Your task to perform on an android device: Open Google Chrome Image 0: 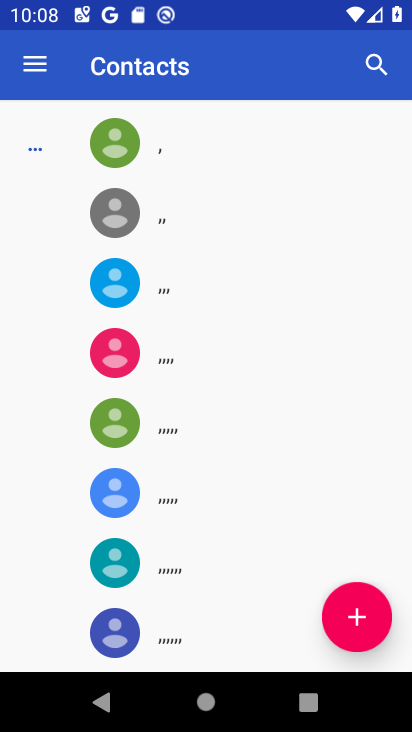
Step 0: press home button
Your task to perform on an android device: Open Google Chrome Image 1: 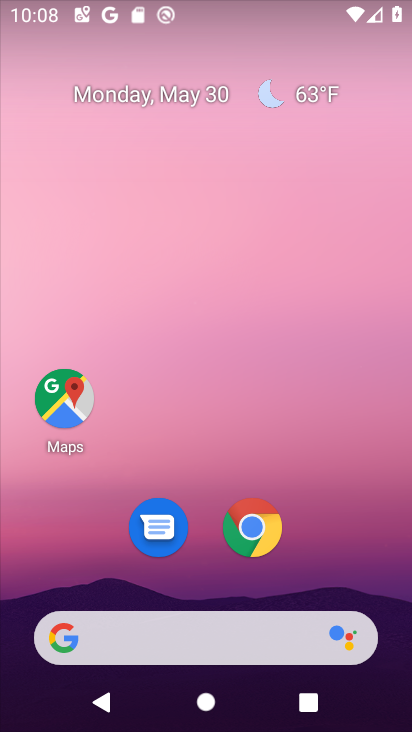
Step 1: drag from (223, 562) to (224, 295)
Your task to perform on an android device: Open Google Chrome Image 2: 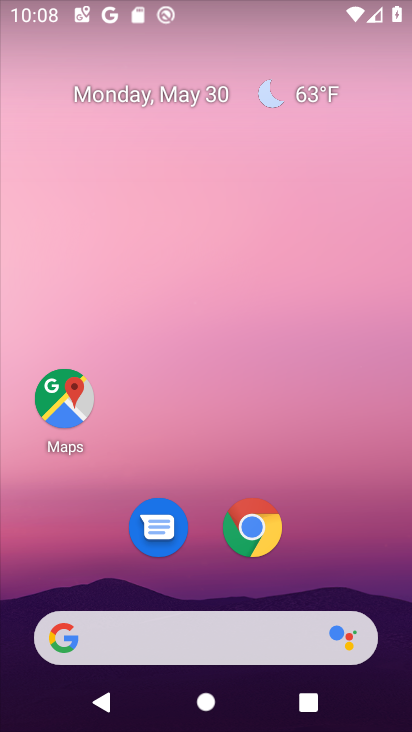
Step 2: click (245, 517)
Your task to perform on an android device: Open Google Chrome Image 3: 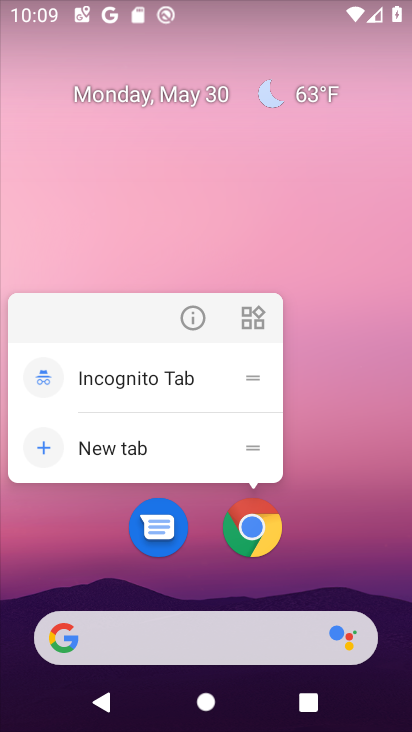
Step 3: click (357, 451)
Your task to perform on an android device: Open Google Chrome Image 4: 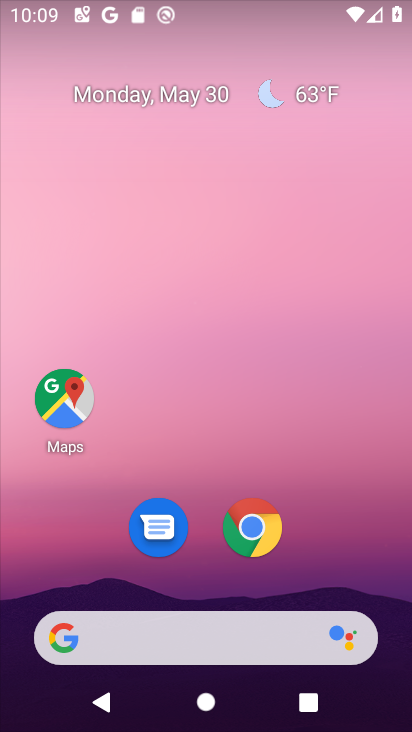
Step 4: click (246, 529)
Your task to perform on an android device: Open Google Chrome Image 5: 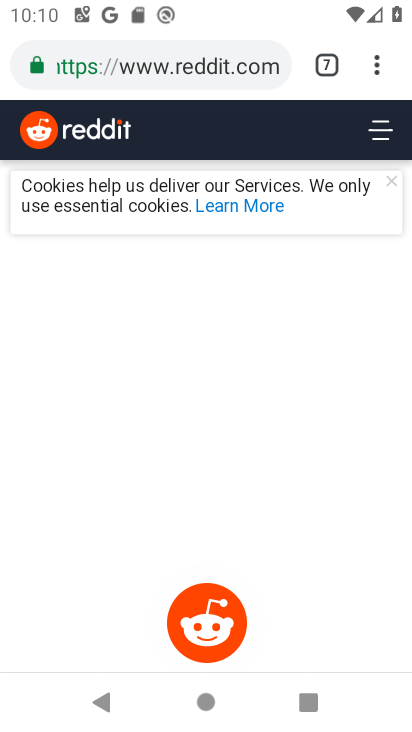
Step 5: task complete